Your task to perform on an android device: Search for seafood restaurants on Google Maps Image 0: 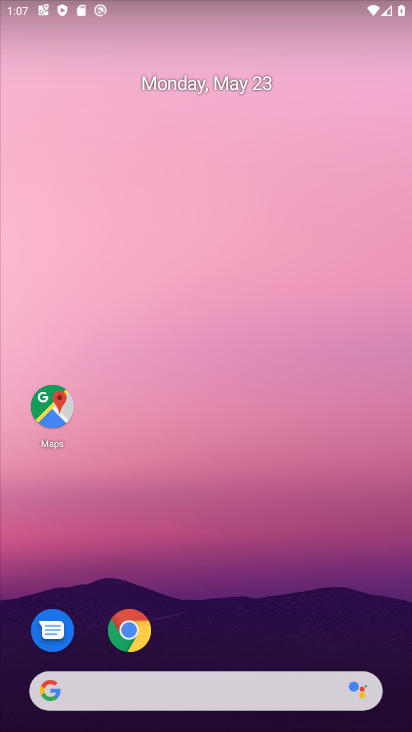
Step 0: drag from (387, 628) to (338, 238)
Your task to perform on an android device: Search for seafood restaurants on Google Maps Image 1: 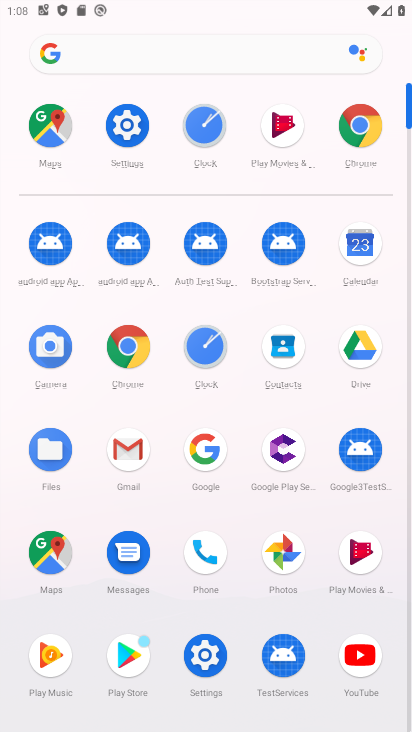
Step 1: click (32, 556)
Your task to perform on an android device: Search for seafood restaurants on Google Maps Image 2: 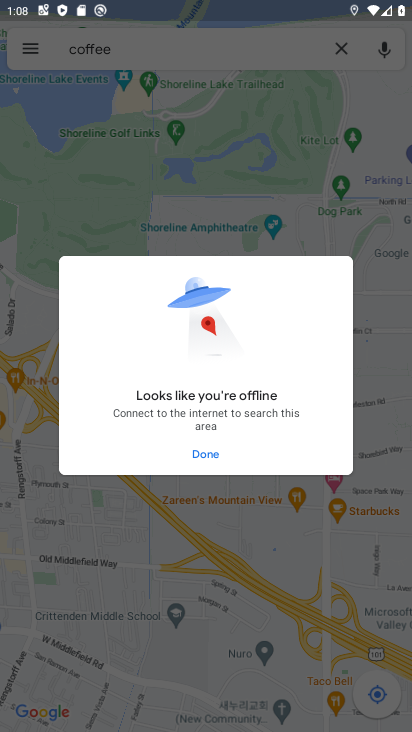
Step 2: click (283, 214)
Your task to perform on an android device: Search for seafood restaurants on Google Maps Image 3: 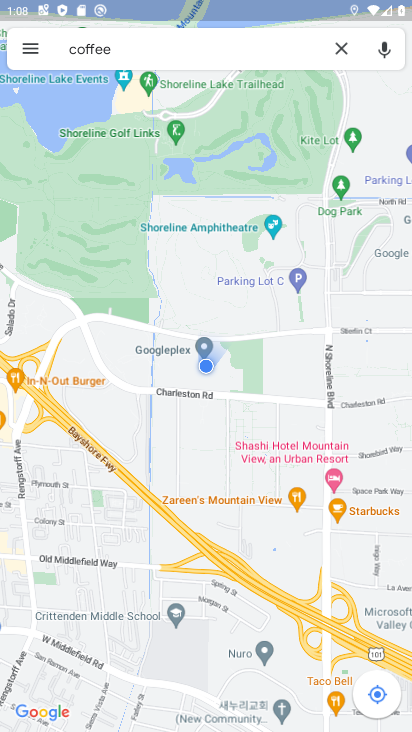
Step 3: click (202, 449)
Your task to perform on an android device: Search for seafood restaurants on Google Maps Image 4: 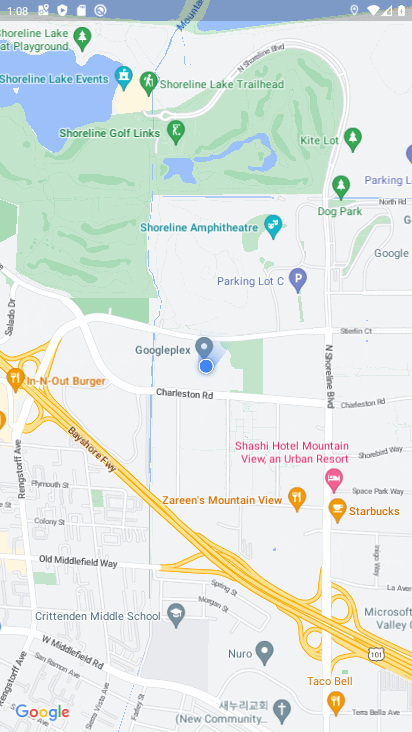
Step 4: drag from (245, 249) to (220, 547)
Your task to perform on an android device: Search for seafood restaurants on Google Maps Image 5: 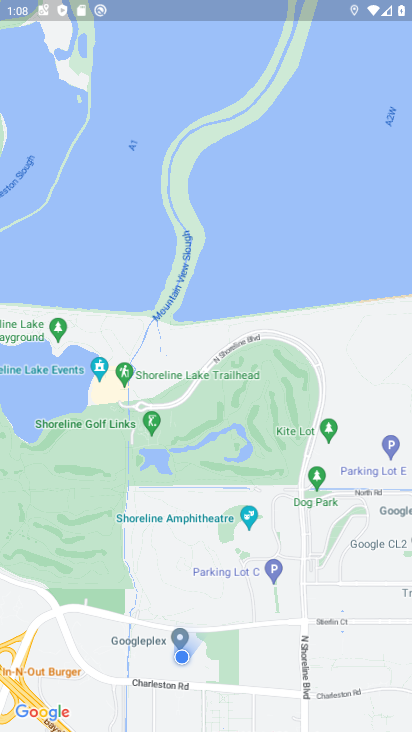
Step 5: press back button
Your task to perform on an android device: Search for seafood restaurants on Google Maps Image 6: 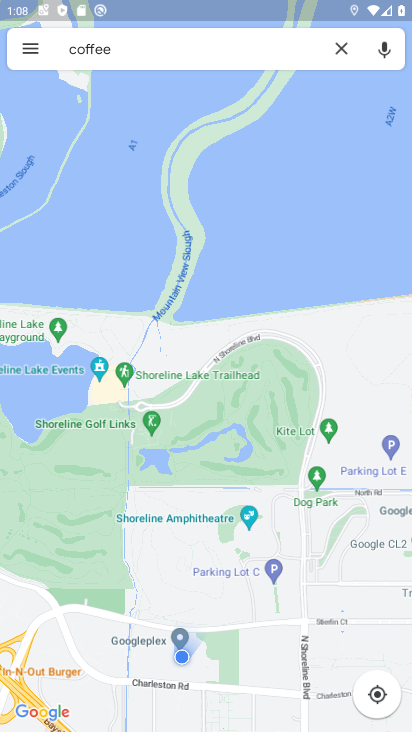
Step 6: click (339, 44)
Your task to perform on an android device: Search for seafood restaurants on Google Maps Image 7: 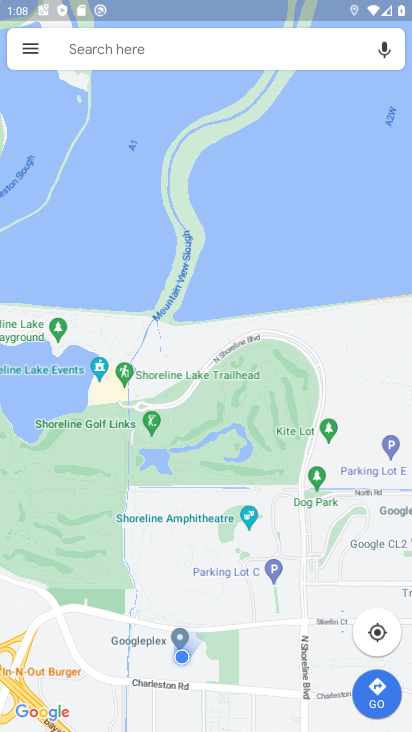
Step 7: click (169, 51)
Your task to perform on an android device: Search for seafood restaurants on Google Maps Image 8: 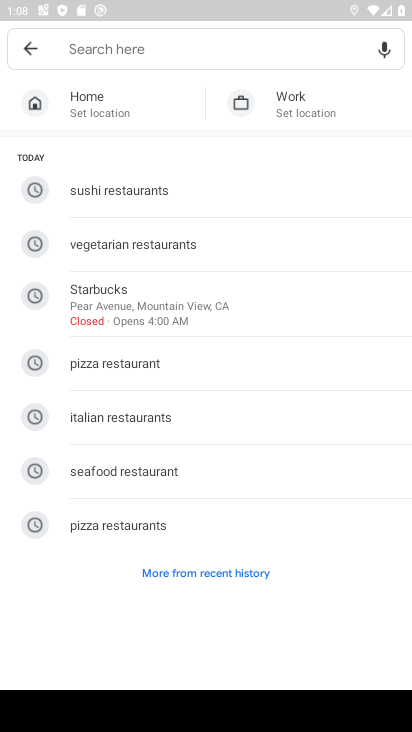
Step 8: type "seafood restaurants"
Your task to perform on an android device: Search for seafood restaurants on Google Maps Image 9: 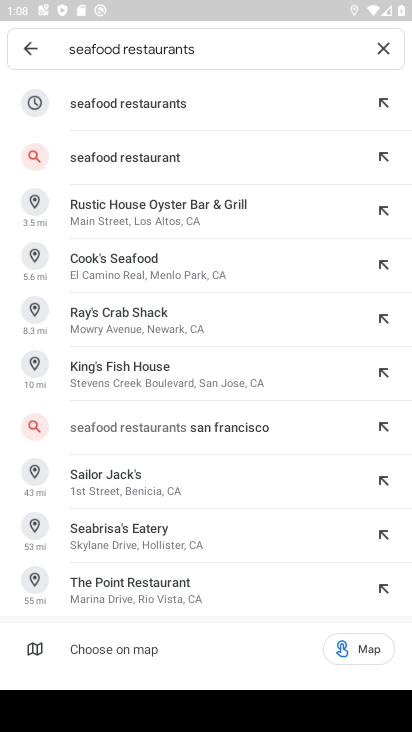
Step 9: click (128, 104)
Your task to perform on an android device: Search for seafood restaurants on Google Maps Image 10: 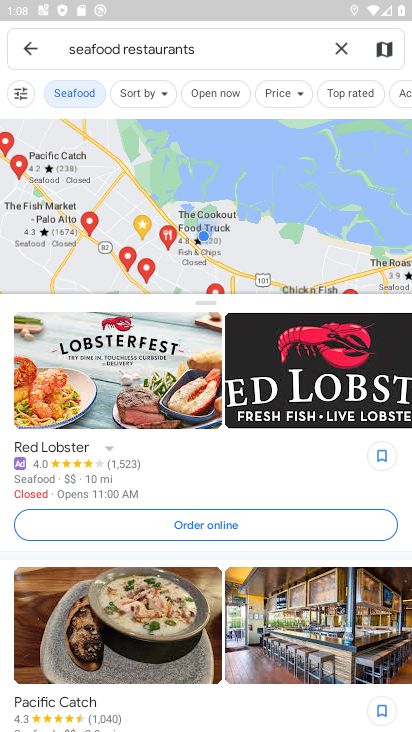
Step 10: task complete